Your task to perform on an android device: Go to sound settings Image 0: 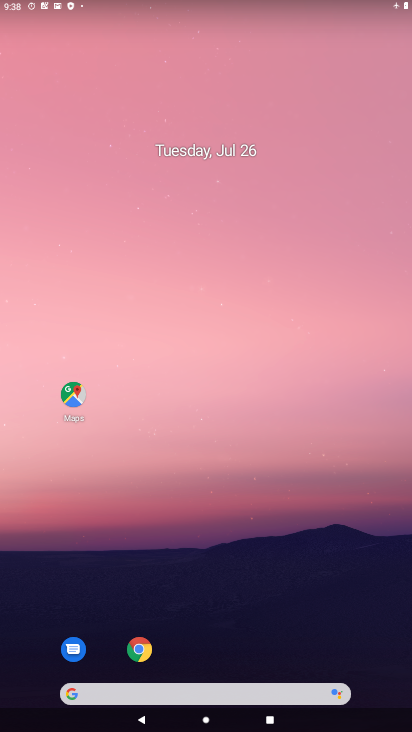
Step 0: drag from (178, 607) to (311, 43)
Your task to perform on an android device: Go to sound settings Image 1: 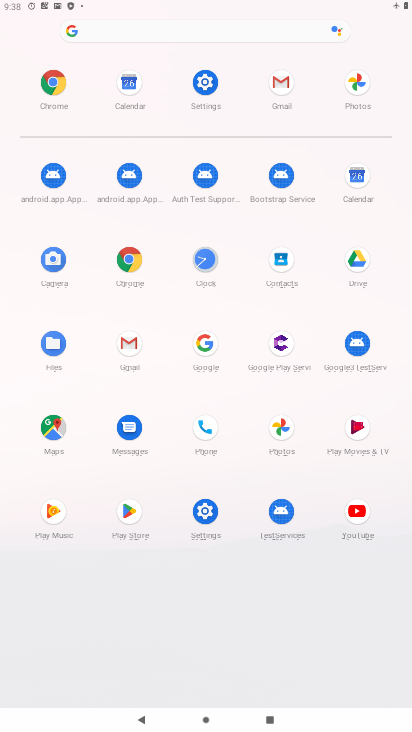
Step 1: click (205, 75)
Your task to perform on an android device: Go to sound settings Image 2: 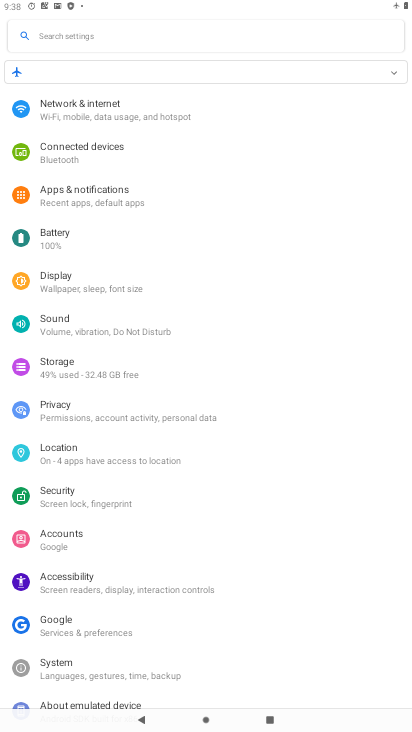
Step 2: click (79, 326)
Your task to perform on an android device: Go to sound settings Image 3: 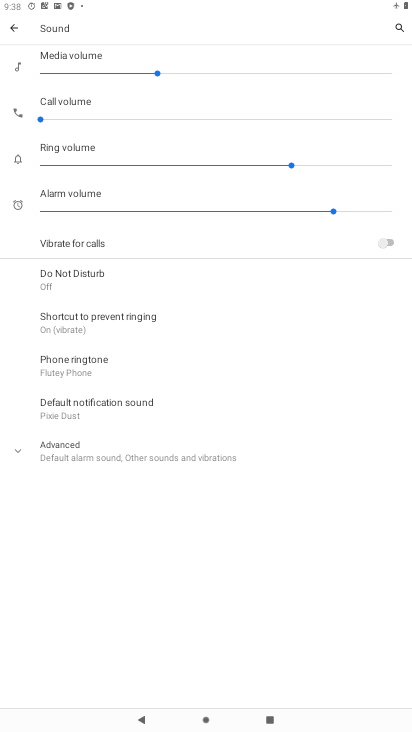
Step 3: task complete